Your task to perform on an android device: choose inbox layout in the gmail app Image 0: 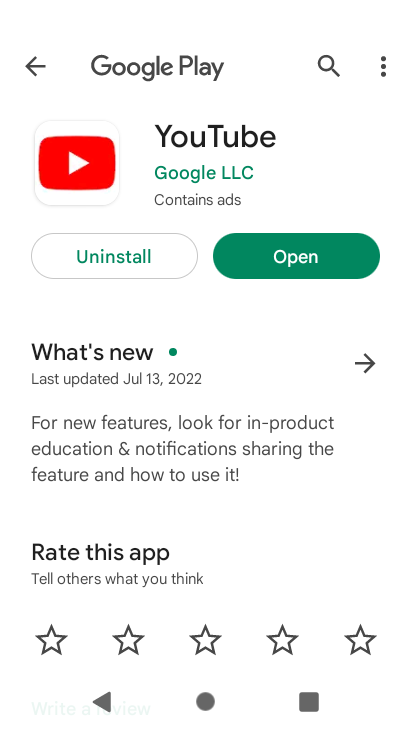
Step 0: press home button
Your task to perform on an android device: choose inbox layout in the gmail app Image 1: 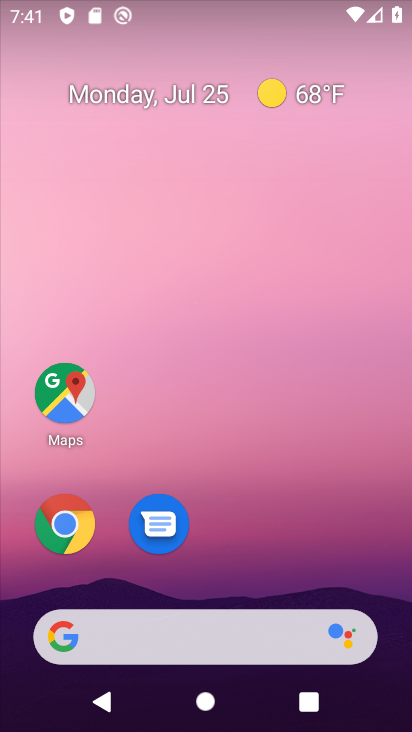
Step 1: drag from (319, 523) to (308, 7)
Your task to perform on an android device: choose inbox layout in the gmail app Image 2: 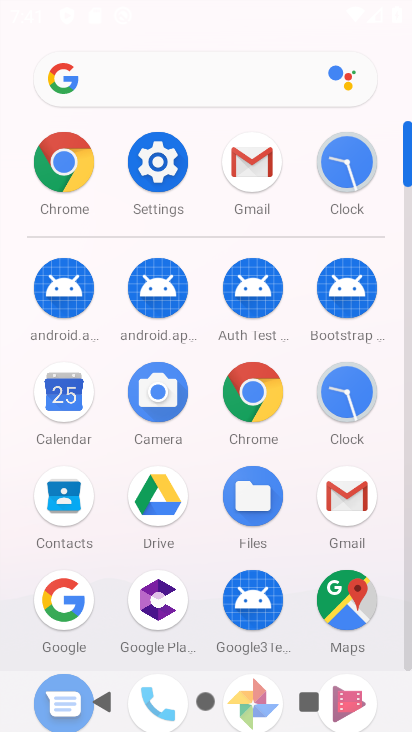
Step 2: click (237, 154)
Your task to perform on an android device: choose inbox layout in the gmail app Image 3: 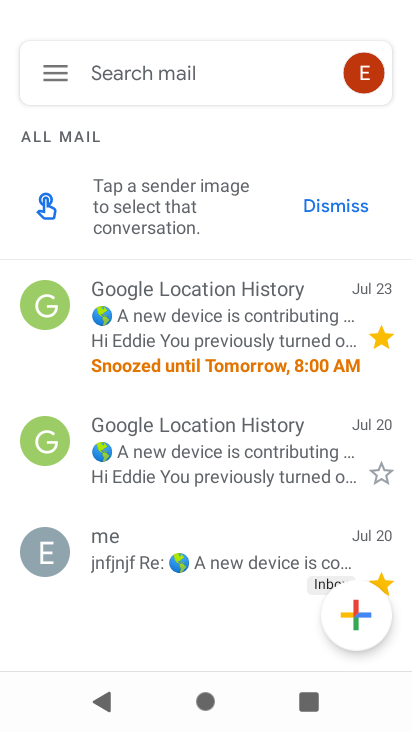
Step 3: click (62, 70)
Your task to perform on an android device: choose inbox layout in the gmail app Image 4: 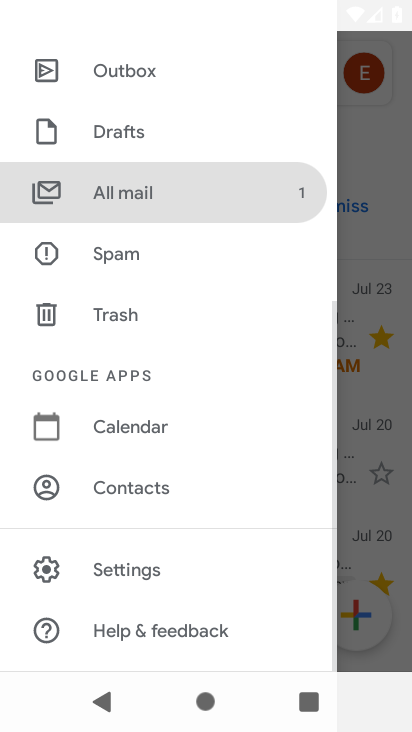
Step 4: click (115, 567)
Your task to perform on an android device: choose inbox layout in the gmail app Image 5: 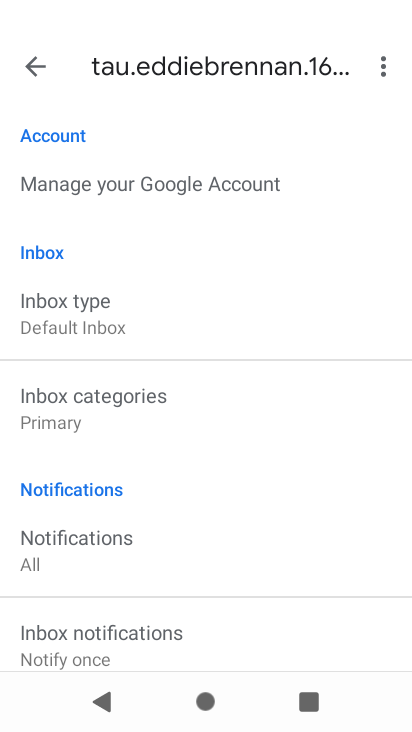
Step 5: click (100, 323)
Your task to perform on an android device: choose inbox layout in the gmail app Image 6: 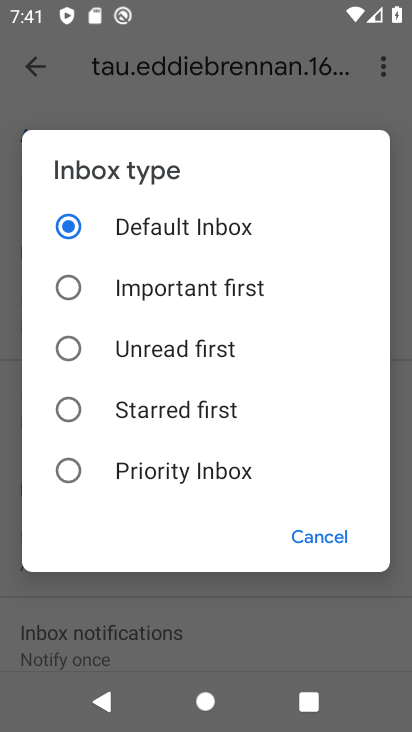
Step 6: task complete